Your task to perform on an android device: turn pop-ups on in chrome Image 0: 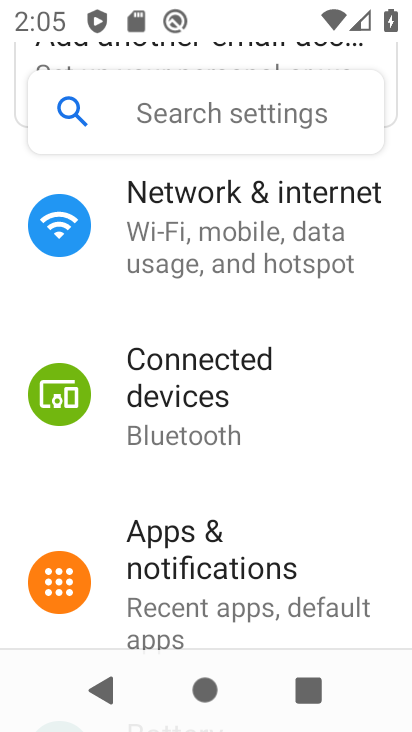
Step 0: press back button
Your task to perform on an android device: turn pop-ups on in chrome Image 1: 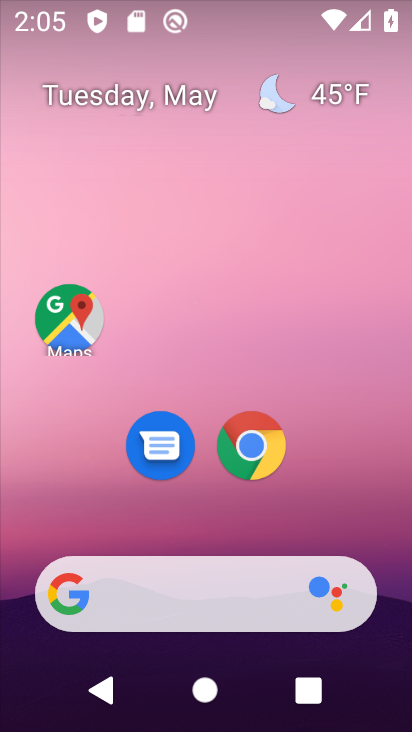
Step 1: click (252, 433)
Your task to perform on an android device: turn pop-ups on in chrome Image 2: 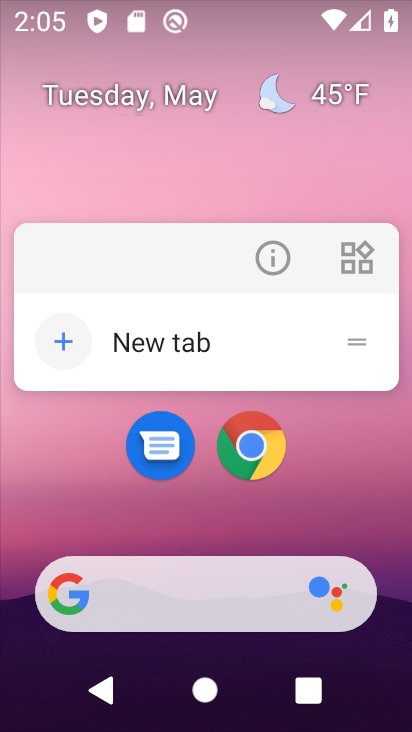
Step 2: click (255, 444)
Your task to perform on an android device: turn pop-ups on in chrome Image 3: 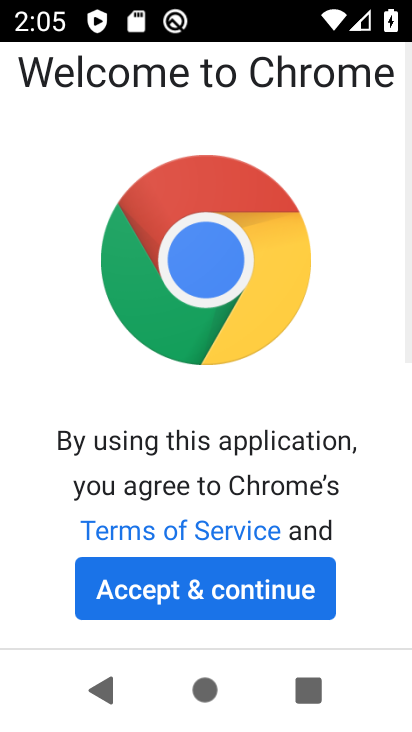
Step 3: click (164, 586)
Your task to perform on an android device: turn pop-ups on in chrome Image 4: 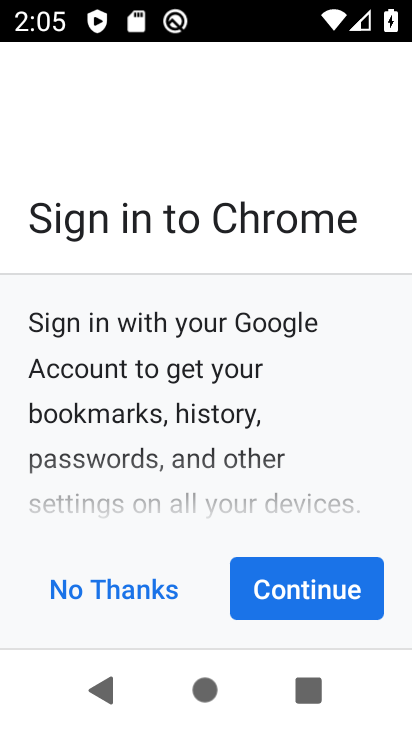
Step 4: click (272, 583)
Your task to perform on an android device: turn pop-ups on in chrome Image 5: 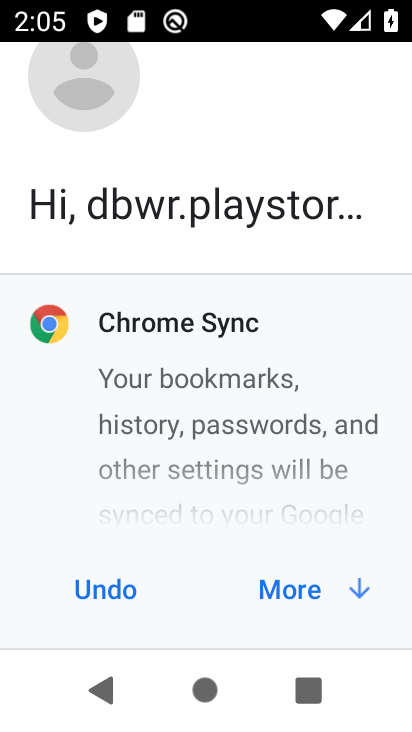
Step 5: click (283, 582)
Your task to perform on an android device: turn pop-ups on in chrome Image 6: 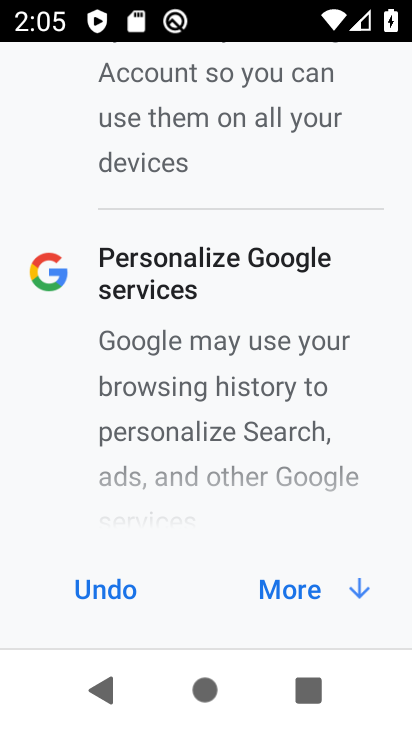
Step 6: click (299, 588)
Your task to perform on an android device: turn pop-ups on in chrome Image 7: 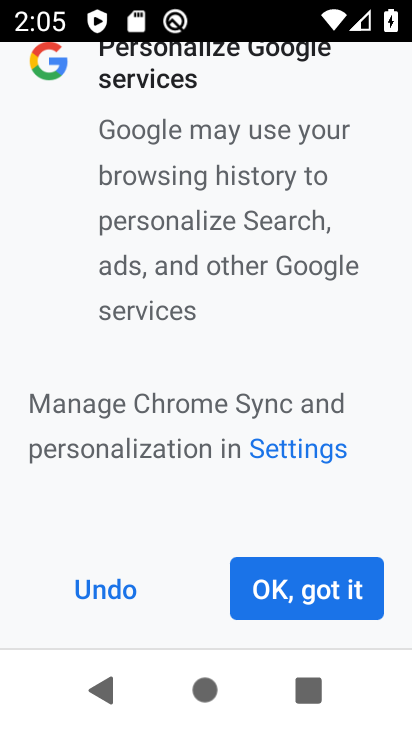
Step 7: click (311, 596)
Your task to perform on an android device: turn pop-ups on in chrome Image 8: 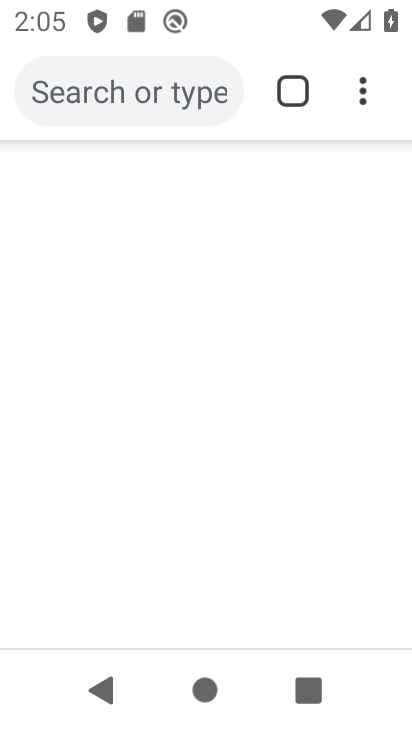
Step 8: drag from (366, 79) to (126, 467)
Your task to perform on an android device: turn pop-ups on in chrome Image 9: 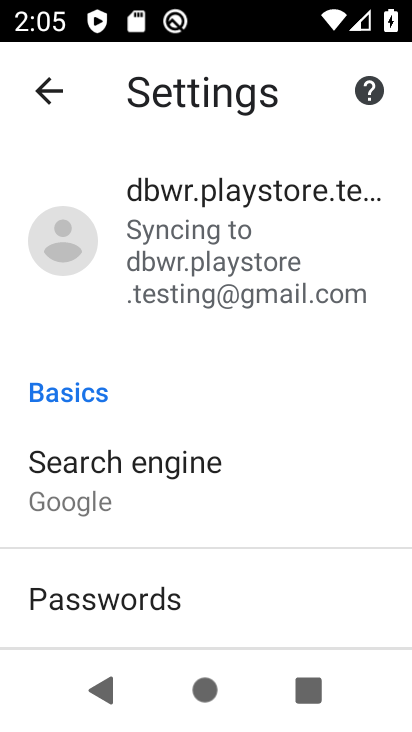
Step 9: drag from (186, 556) to (327, 56)
Your task to perform on an android device: turn pop-ups on in chrome Image 10: 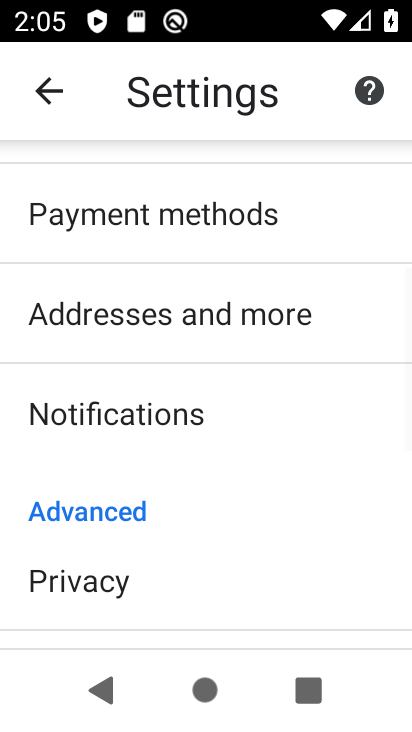
Step 10: drag from (181, 573) to (271, 182)
Your task to perform on an android device: turn pop-ups on in chrome Image 11: 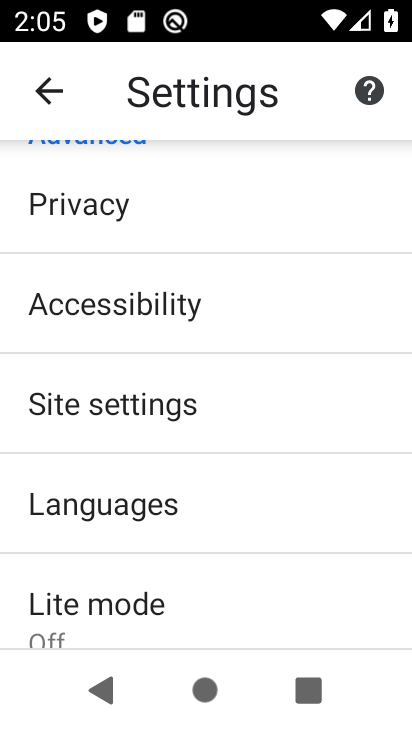
Step 11: click (257, 409)
Your task to perform on an android device: turn pop-ups on in chrome Image 12: 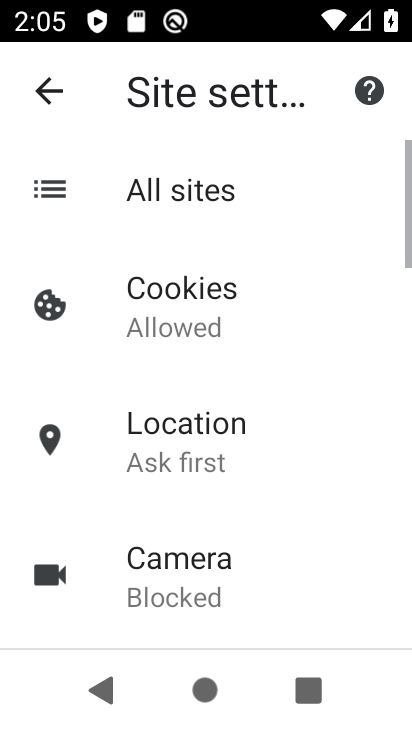
Step 12: drag from (214, 570) to (330, 83)
Your task to perform on an android device: turn pop-ups on in chrome Image 13: 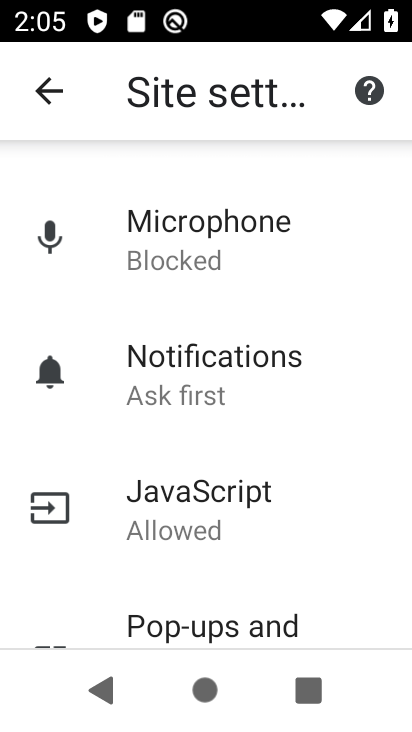
Step 13: click (189, 606)
Your task to perform on an android device: turn pop-ups on in chrome Image 14: 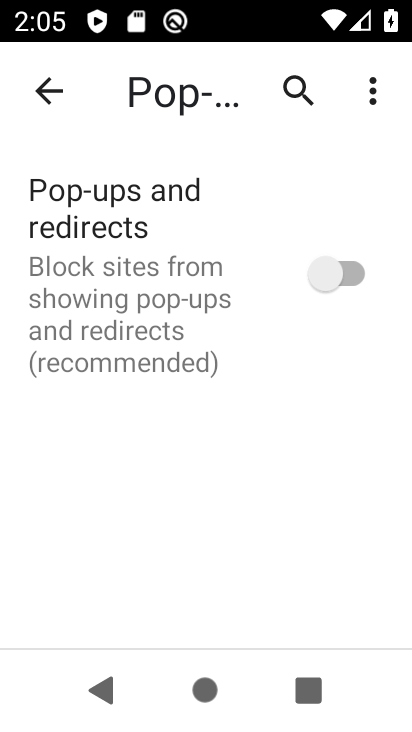
Step 14: click (335, 268)
Your task to perform on an android device: turn pop-ups on in chrome Image 15: 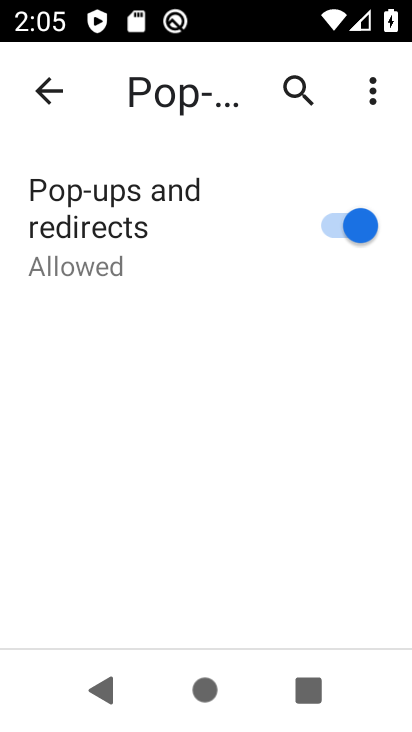
Step 15: task complete